Your task to perform on an android device: Where can I buy a nice beach cooler? Image 0: 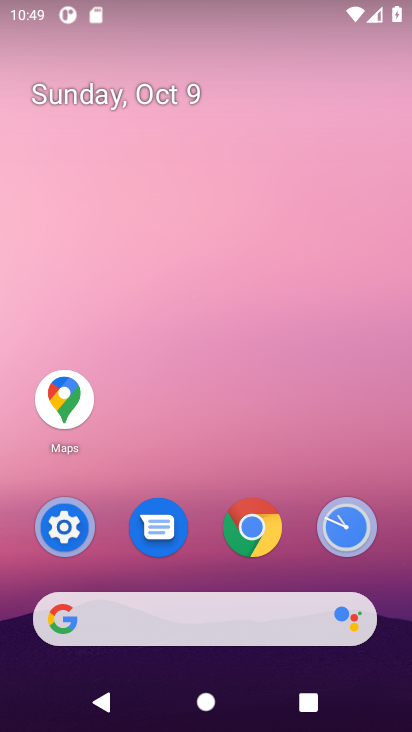
Step 0: click (259, 531)
Your task to perform on an android device: Where can I buy a nice beach cooler? Image 1: 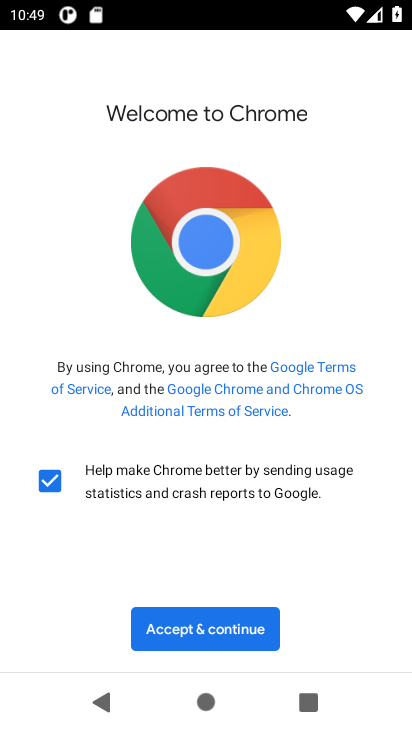
Step 1: click (213, 643)
Your task to perform on an android device: Where can I buy a nice beach cooler? Image 2: 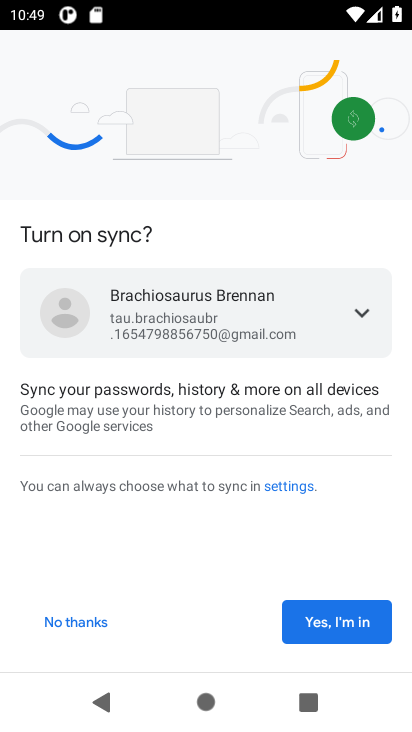
Step 2: click (99, 624)
Your task to perform on an android device: Where can I buy a nice beach cooler? Image 3: 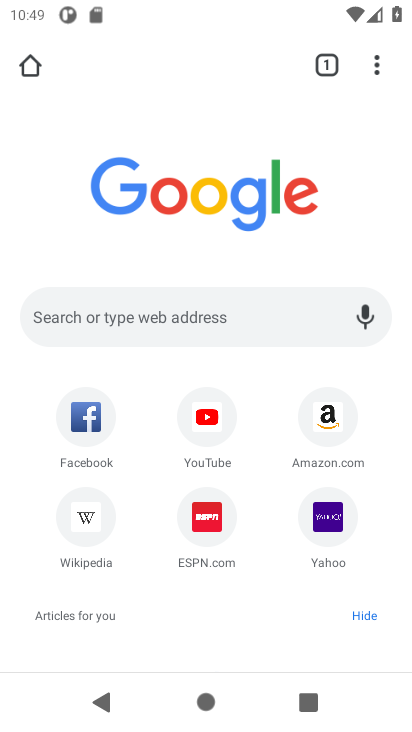
Step 3: click (147, 313)
Your task to perform on an android device: Where can I buy a nice beach cooler? Image 4: 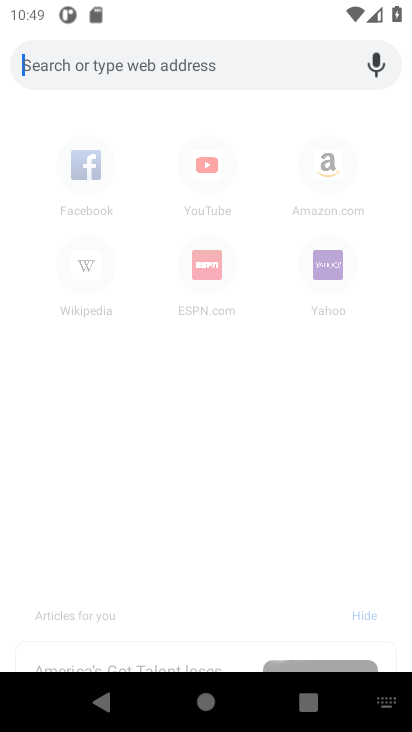
Step 4: type "Where can I buy a nice beach cooler?"
Your task to perform on an android device: Where can I buy a nice beach cooler? Image 5: 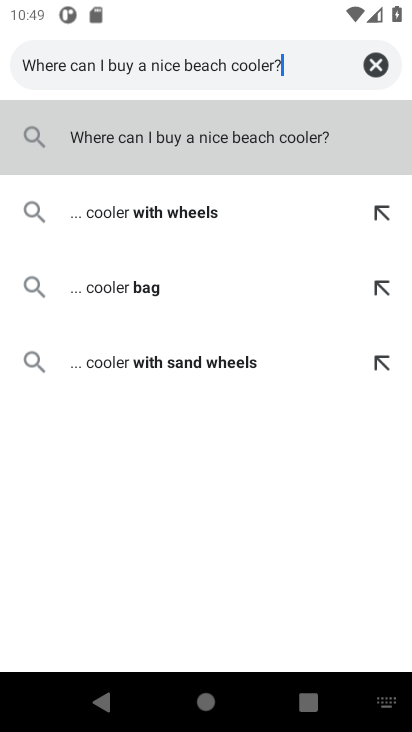
Step 5: click (198, 149)
Your task to perform on an android device: Where can I buy a nice beach cooler? Image 6: 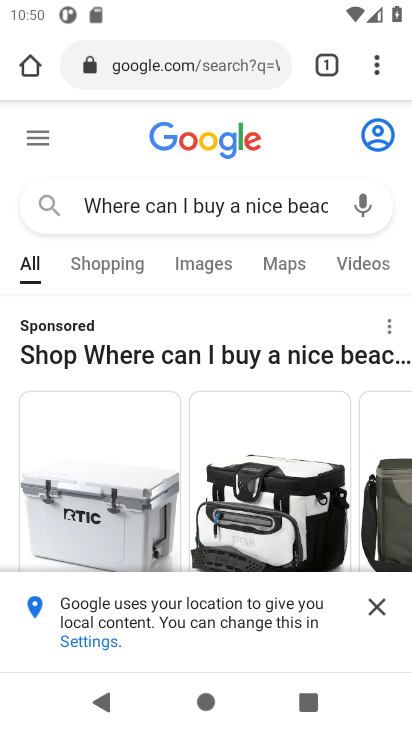
Step 6: drag from (226, 469) to (253, 252)
Your task to perform on an android device: Where can I buy a nice beach cooler? Image 7: 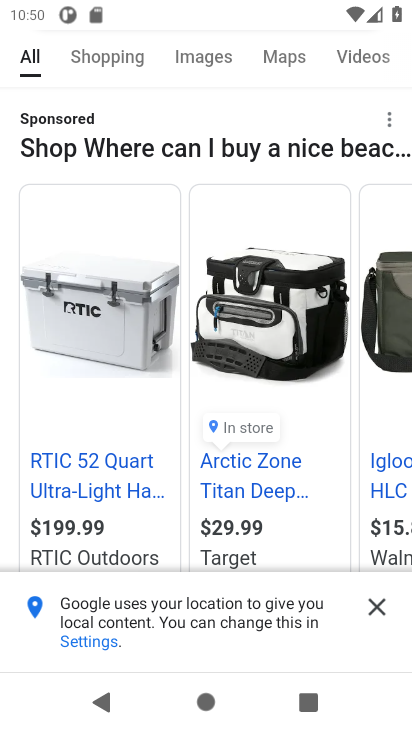
Step 7: drag from (211, 418) to (221, 281)
Your task to perform on an android device: Where can I buy a nice beach cooler? Image 8: 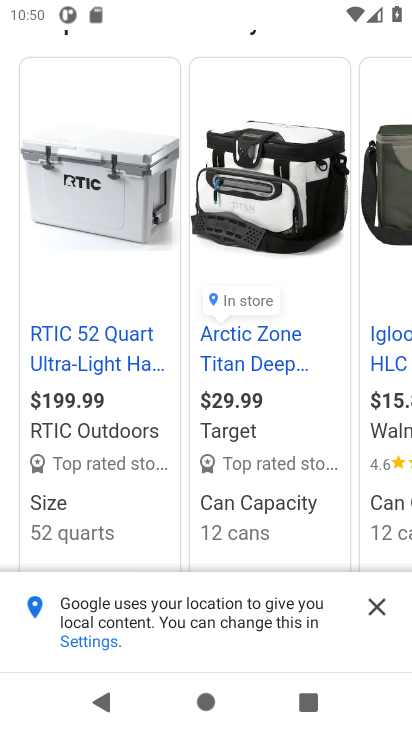
Step 8: click (379, 612)
Your task to perform on an android device: Where can I buy a nice beach cooler? Image 9: 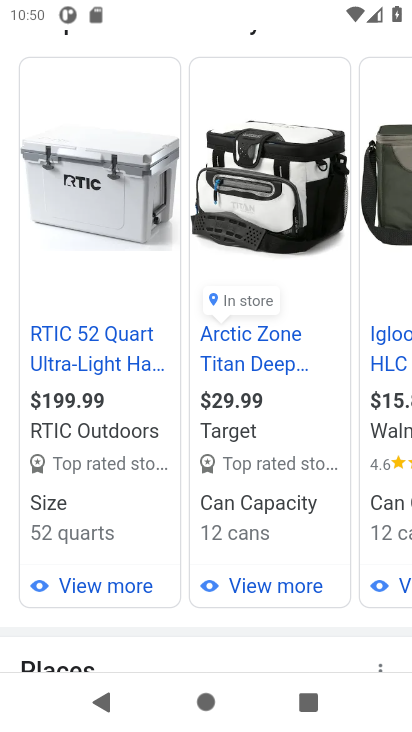
Step 9: drag from (275, 550) to (268, 324)
Your task to perform on an android device: Where can I buy a nice beach cooler? Image 10: 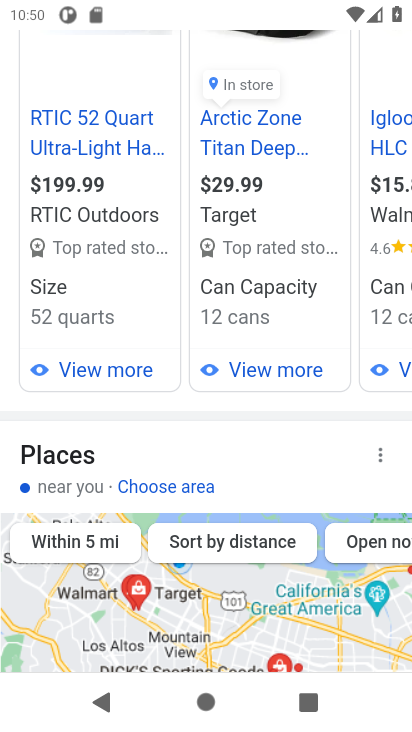
Step 10: click (115, 153)
Your task to perform on an android device: Where can I buy a nice beach cooler? Image 11: 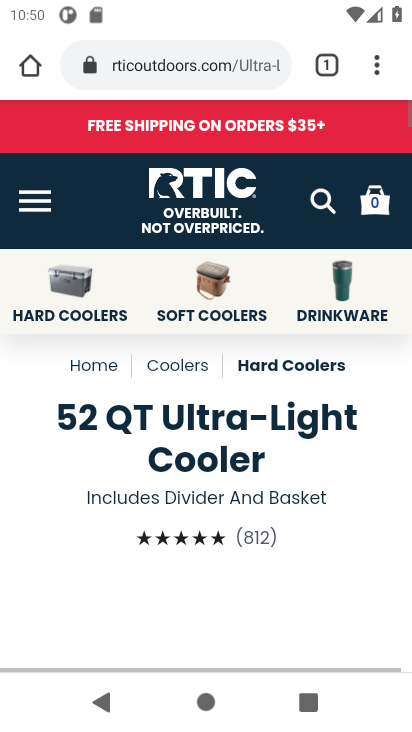
Step 11: task complete